Your task to perform on an android device: Check the news Image 0: 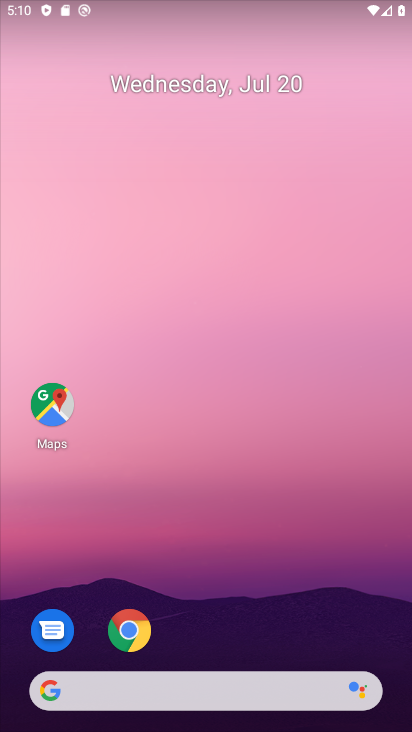
Step 0: drag from (190, 698) to (226, 237)
Your task to perform on an android device: Check the news Image 1: 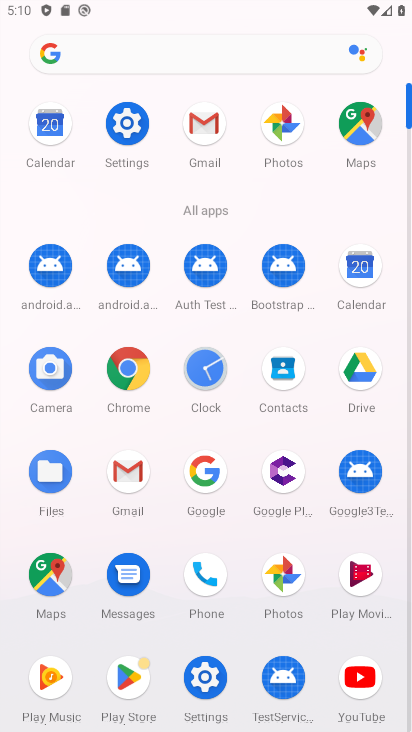
Step 1: click (136, 371)
Your task to perform on an android device: Check the news Image 2: 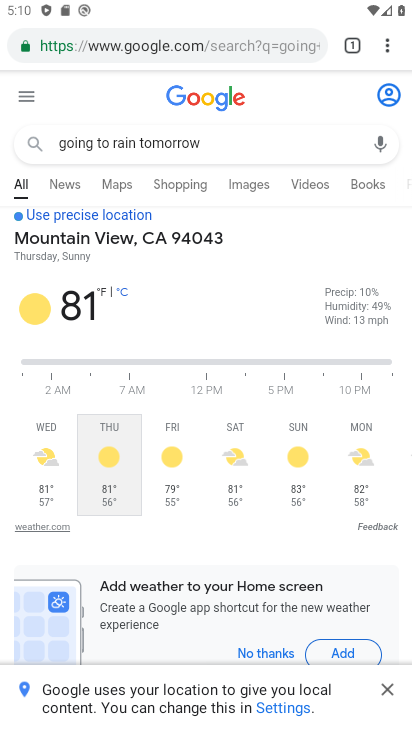
Step 2: click (284, 50)
Your task to perform on an android device: Check the news Image 3: 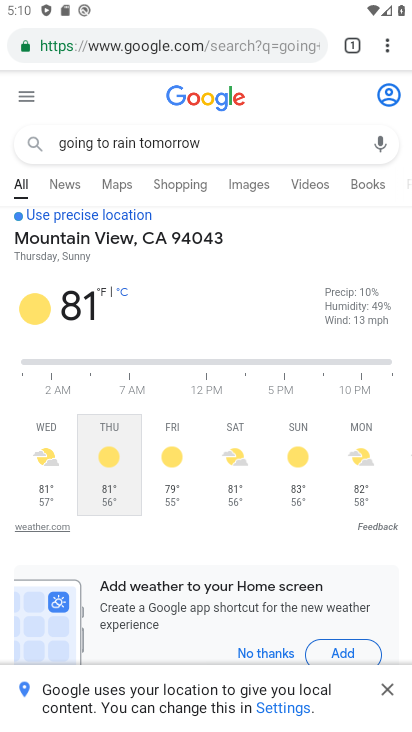
Step 3: click (284, 50)
Your task to perform on an android device: Check the news Image 4: 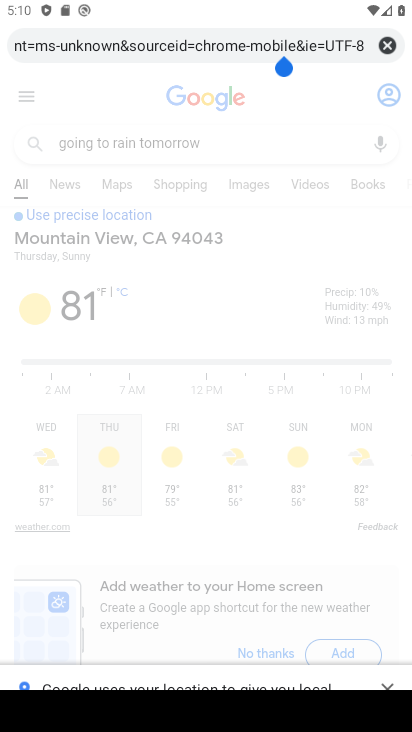
Step 4: click (391, 43)
Your task to perform on an android device: Check the news Image 5: 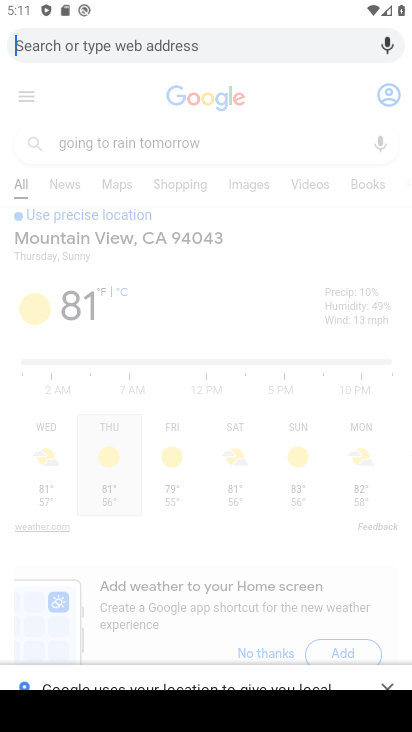
Step 5: type "check the news"
Your task to perform on an android device: Check the news Image 6: 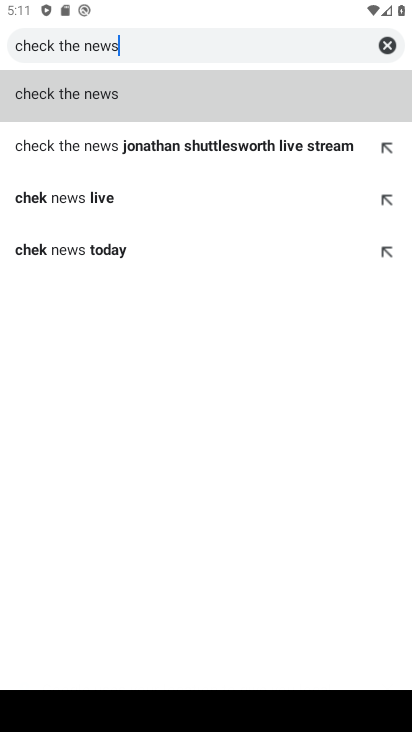
Step 6: click (65, 99)
Your task to perform on an android device: Check the news Image 7: 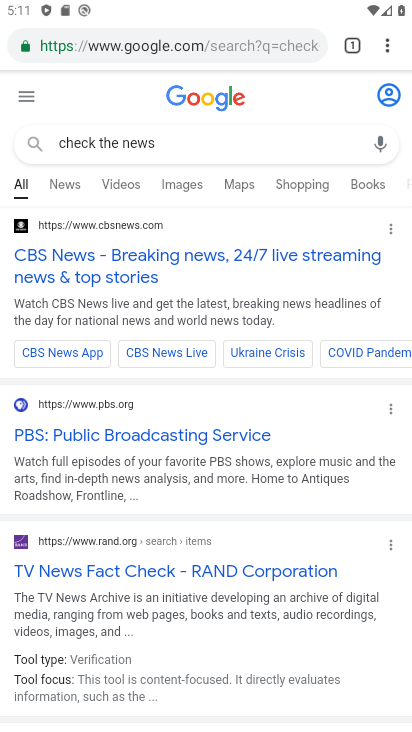
Step 7: task complete